Your task to perform on an android device: toggle wifi Image 0: 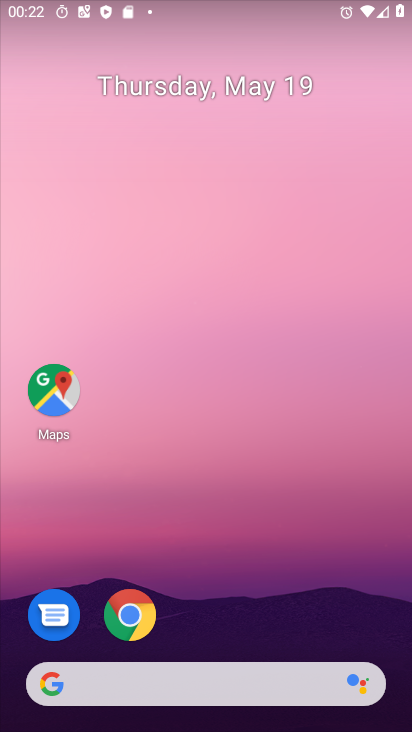
Step 0: drag from (140, 11) to (136, 464)
Your task to perform on an android device: toggle wifi Image 1: 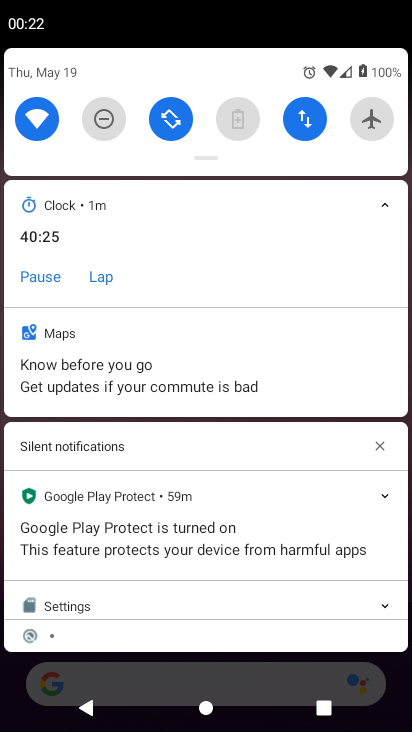
Step 1: click (46, 110)
Your task to perform on an android device: toggle wifi Image 2: 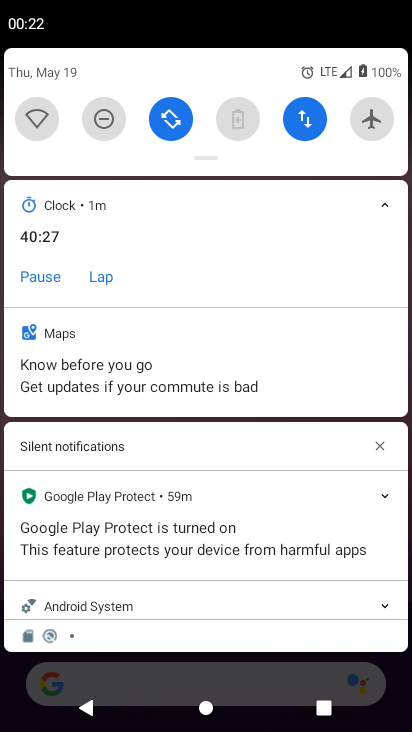
Step 2: task complete